Your task to perform on an android device: turn off javascript in the chrome app Image 0: 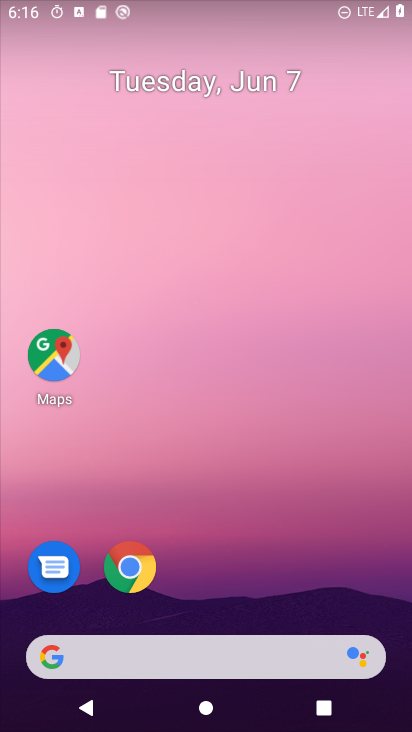
Step 0: drag from (312, 653) to (325, 75)
Your task to perform on an android device: turn off javascript in the chrome app Image 1: 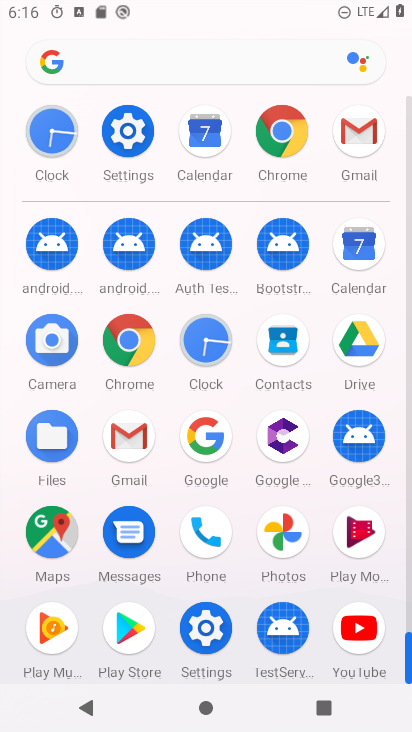
Step 1: click (127, 339)
Your task to perform on an android device: turn off javascript in the chrome app Image 2: 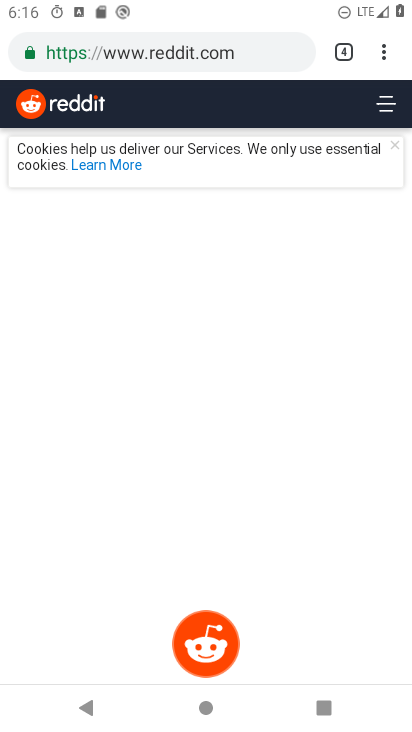
Step 2: click (384, 52)
Your task to perform on an android device: turn off javascript in the chrome app Image 3: 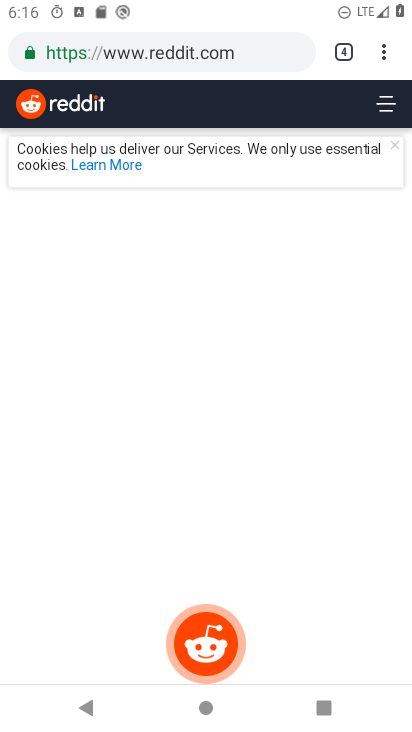
Step 3: drag from (396, 31) to (215, 621)
Your task to perform on an android device: turn off javascript in the chrome app Image 4: 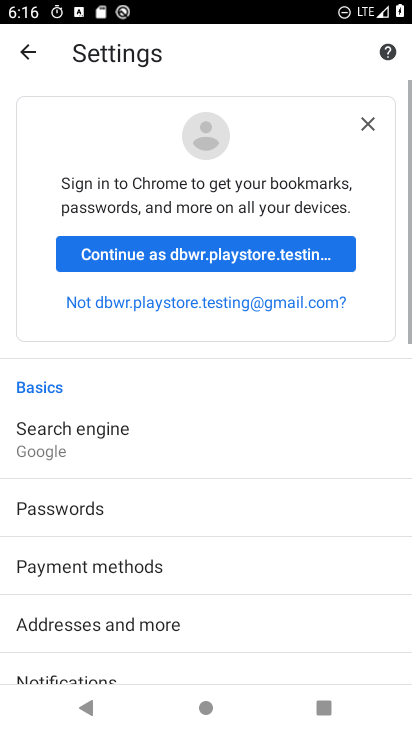
Step 4: drag from (204, 614) to (209, 23)
Your task to perform on an android device: turn off javascript in the chrome app Image 5: 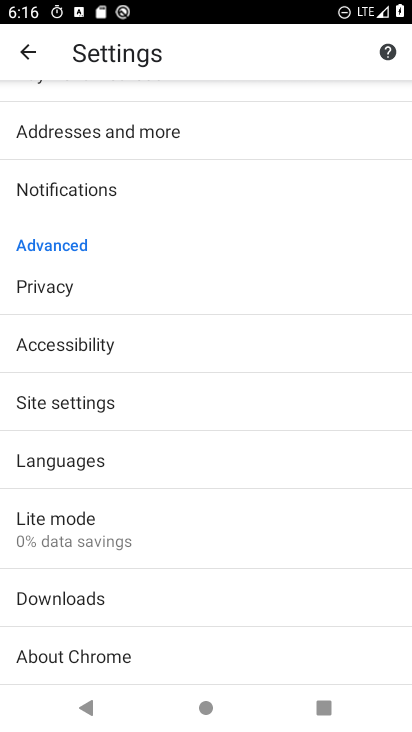
Step 5: click (98, 365)
Your task to perform on an android device: turn off javascript in the chrome app Image 6: 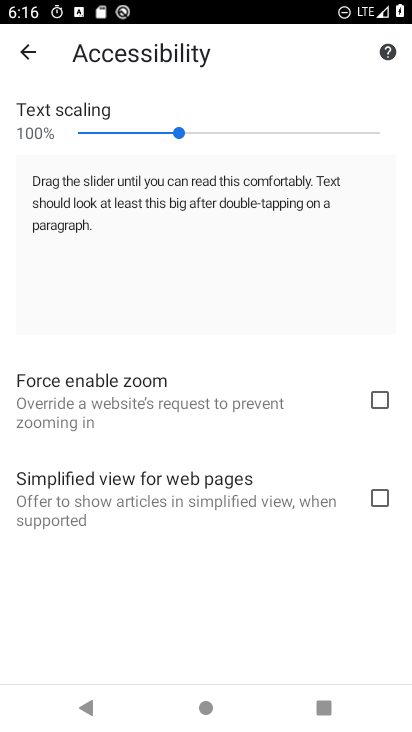
Step 6: press back button
Your task to perform on an android device: turn off javascript in the chrome app Image 7: 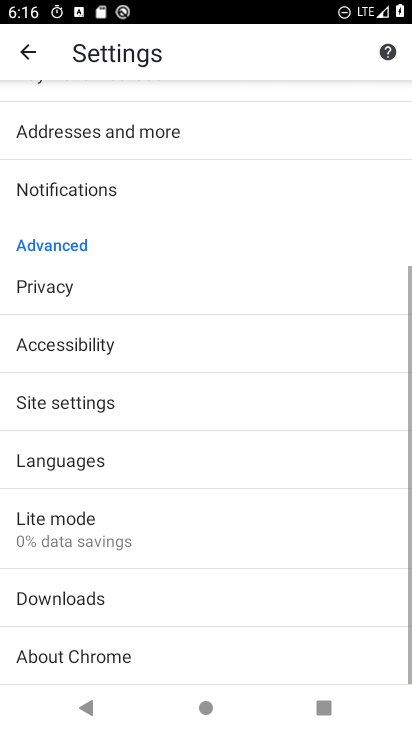
Step 7: click (116, 411)
Your task to perform on an android device: turn off javascript in the chrome app Image 8: 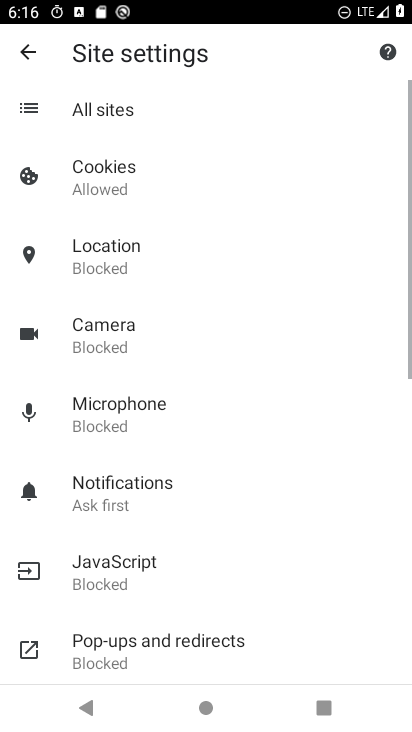
Step 8: drag from (245, 637) to (281, 350)
Your task to perform on an android device: turn off javascript in the chrome app Image 9: 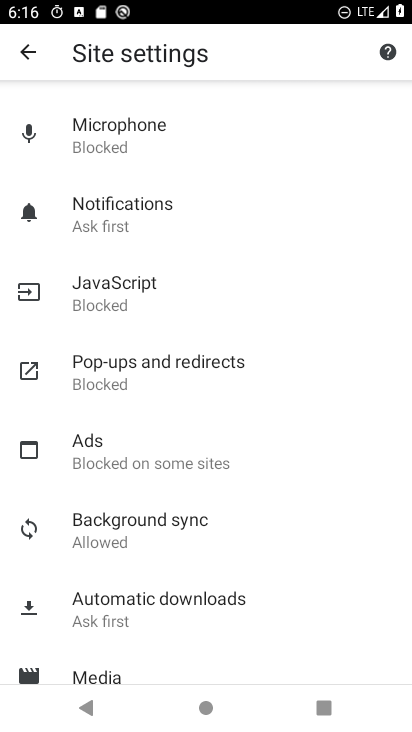
Step 9: click (164, 303)
Your task to perform on an android device: turn off javascript in the chrome app Image 10: 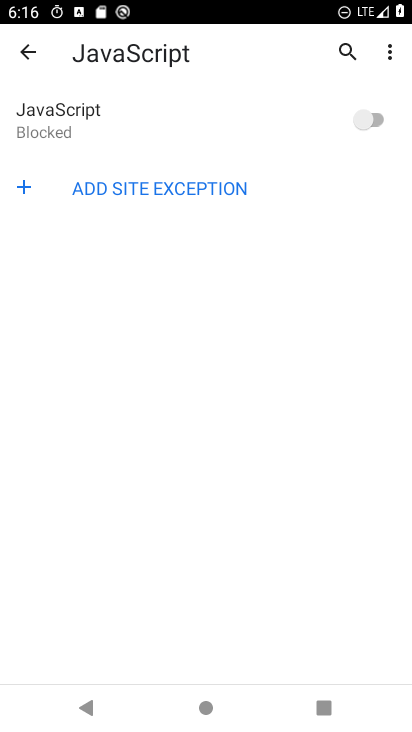
Step 10: task complete